Your task to perform on an android device: change notification settings in the gmail app Image 0: 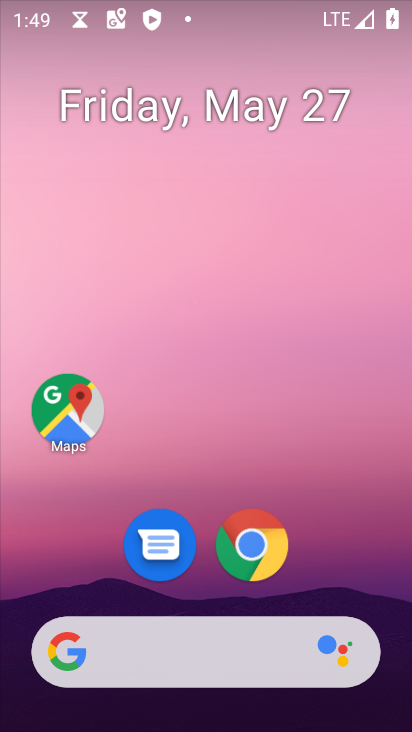
Step 0: drag from (306, 357) to (187, 1)
Your task to perform on an android device: change notification settings in the gmail app Image 1: 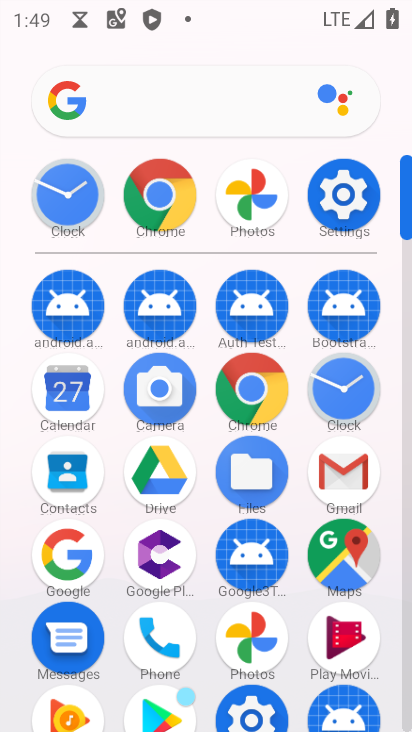
Step 1: click (367, 467)
Your task to perform on an android device: change notification settings in the gmail app Image 2: 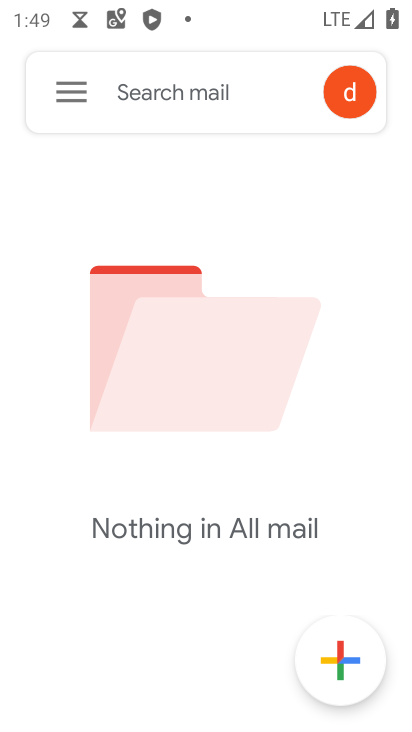
Step 2: click (64, 101)
Your task to perform on an android device: change notification settings in the gmail app Image 3: 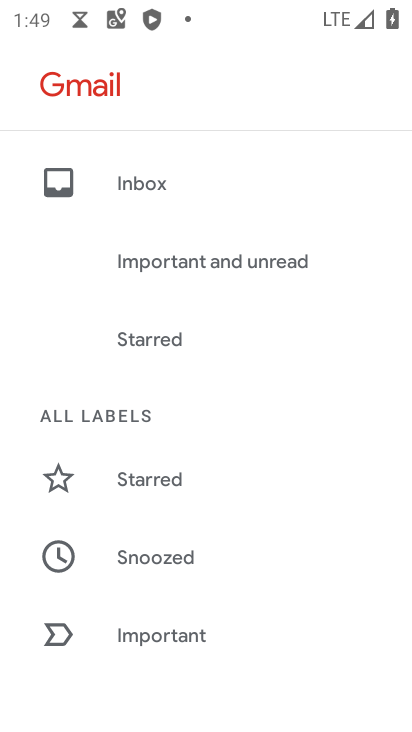
Step 3: drag from (206, 614) to (206, 124)
Your task to perform on an android device: change notification settings in the gmail app Image 4: 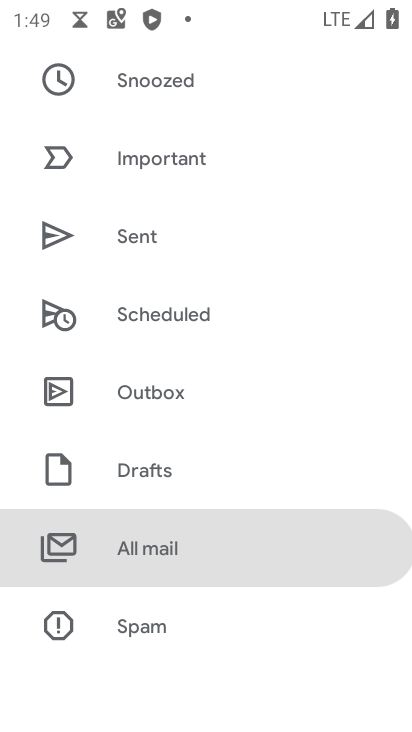
Step 4: drag from (247, 612) to (194, 38)
Your task to perform on an android device: change notification settings in the gmail app Image 5: 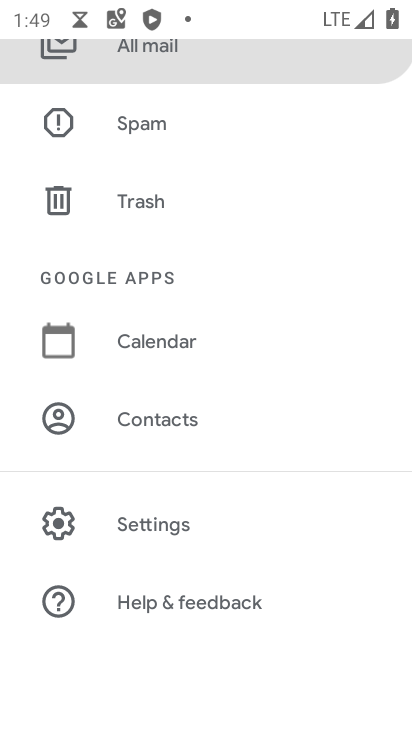
Step 5: click (209, 541)
Your task to perform on an android device: change notification settings in the gmail app Image 6: 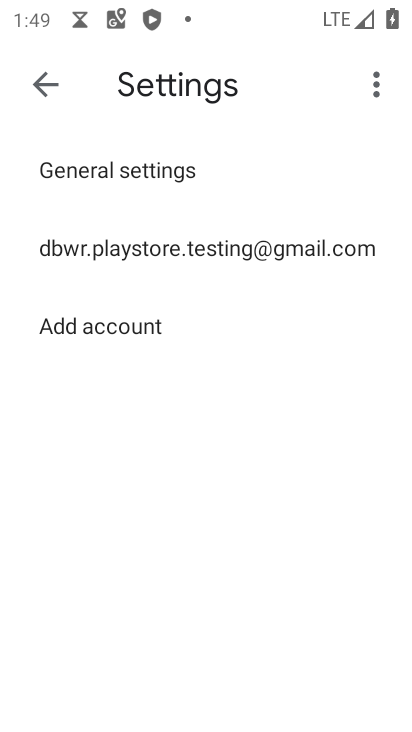
Step 6: click (176, 258)
Your task to perform on an android device: change notification settings in the gmail app Image 7: 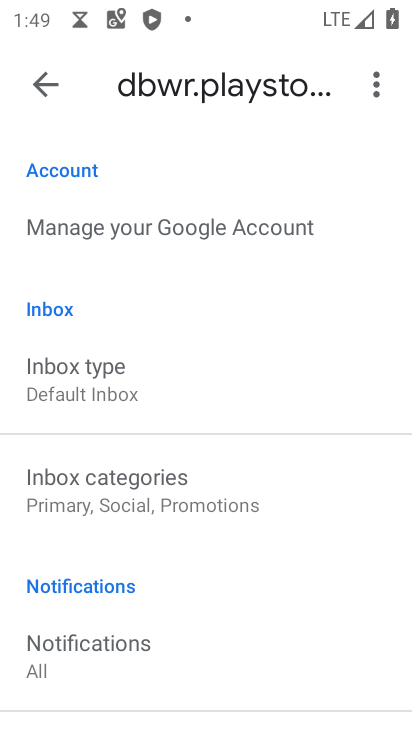
Step 7: click (148, 637)
Your task to perform on an android device: change notification settings in the gmail app Image 8: 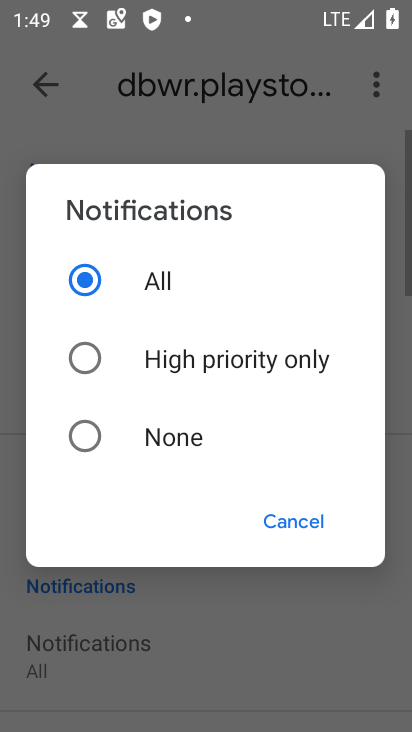
Step 8: click (205, 436)
Your task to perform on an android device: change notification settings in the gmail app Image 9: 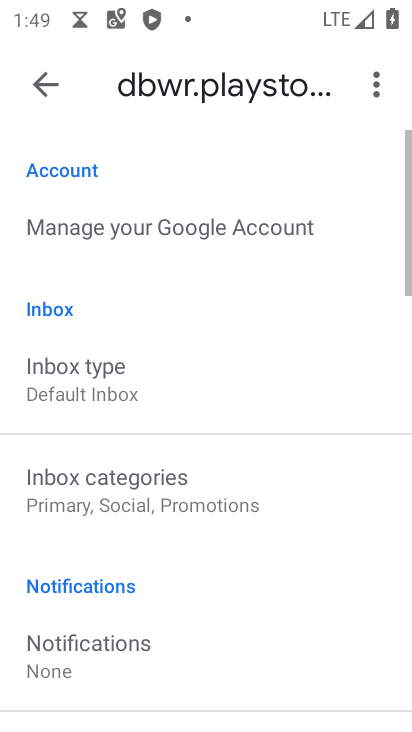
Step 9: task complete